Your task to perform on an android device: change notifications settings Image 0: 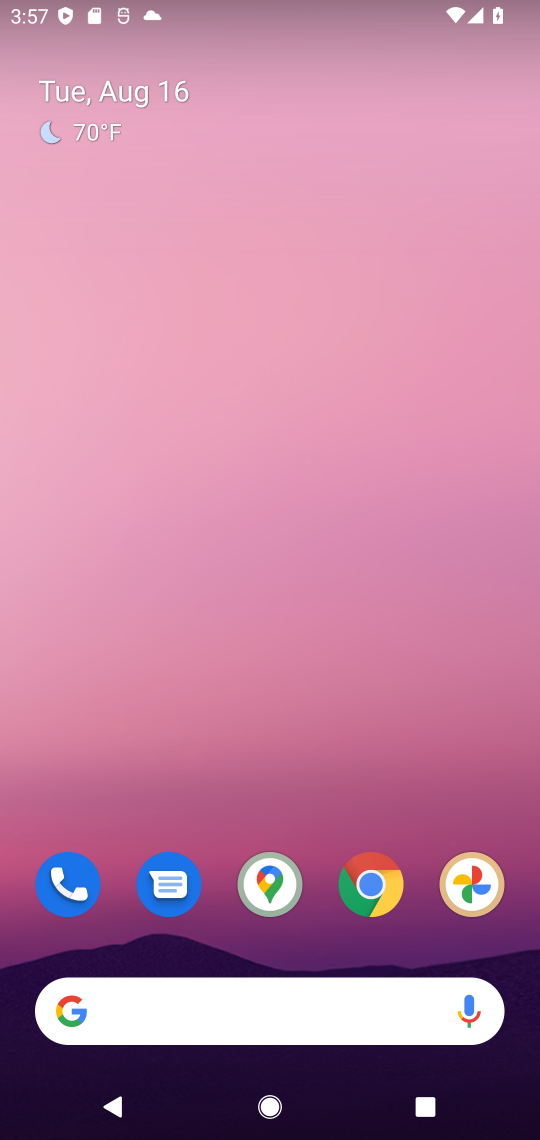
Step 0: drag from (243, 548) to (243, 225)
Your task to perform on an android device: change notifications settings Image 1: 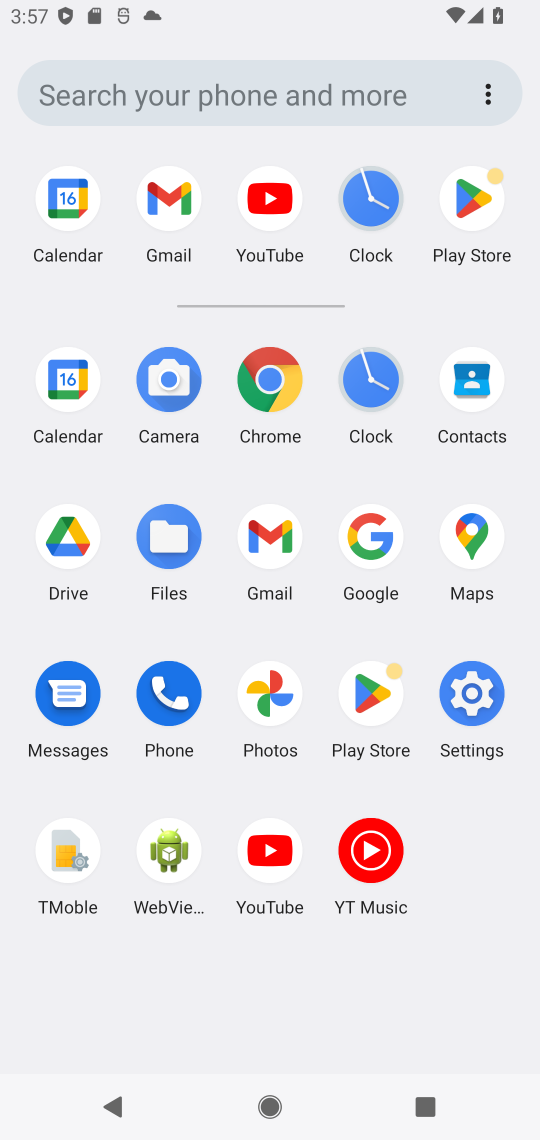
Step 1: click (486, 683)
Your task to perform on an android device: change notifications settings Image 2: 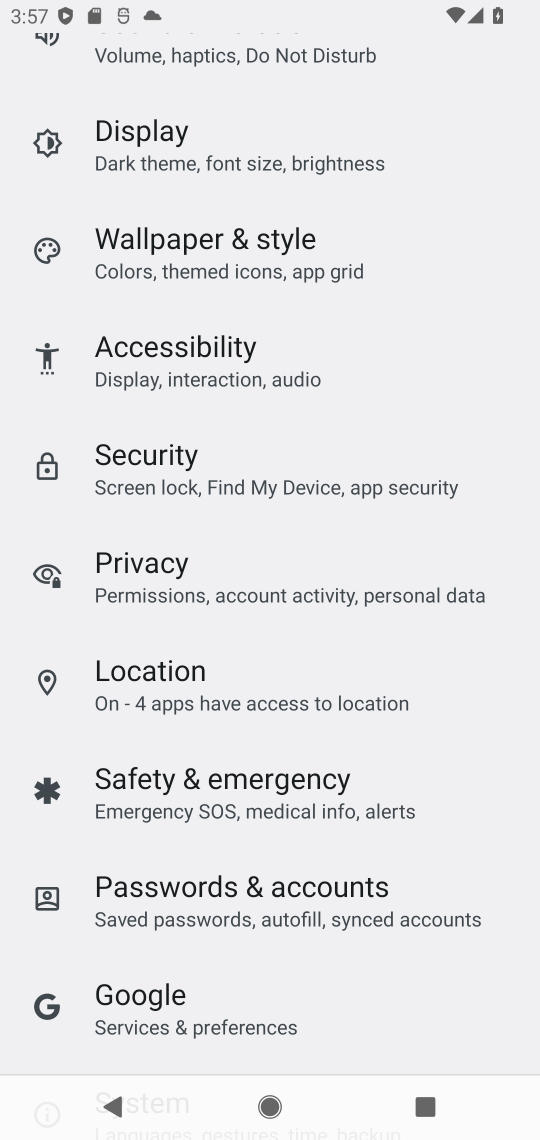
Step 2: drag from (261, 403) to (263, 790)
Your task to perform on an android device: change notifications settings Image 3: 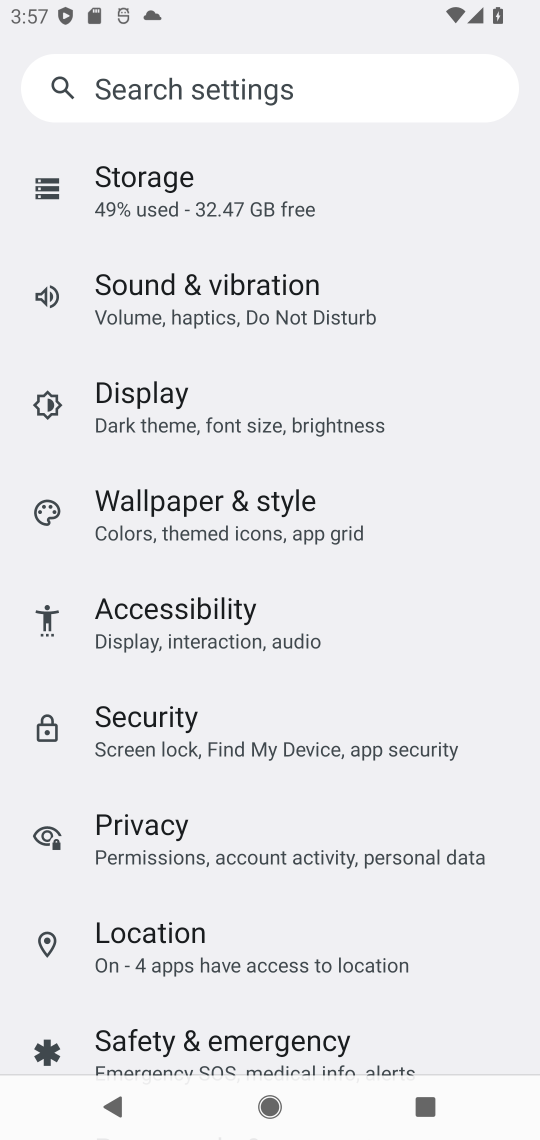
Step 3: drag from (256, 359) to (333, 864)
Your task to perform on an android device: change notifications settings Image 4: 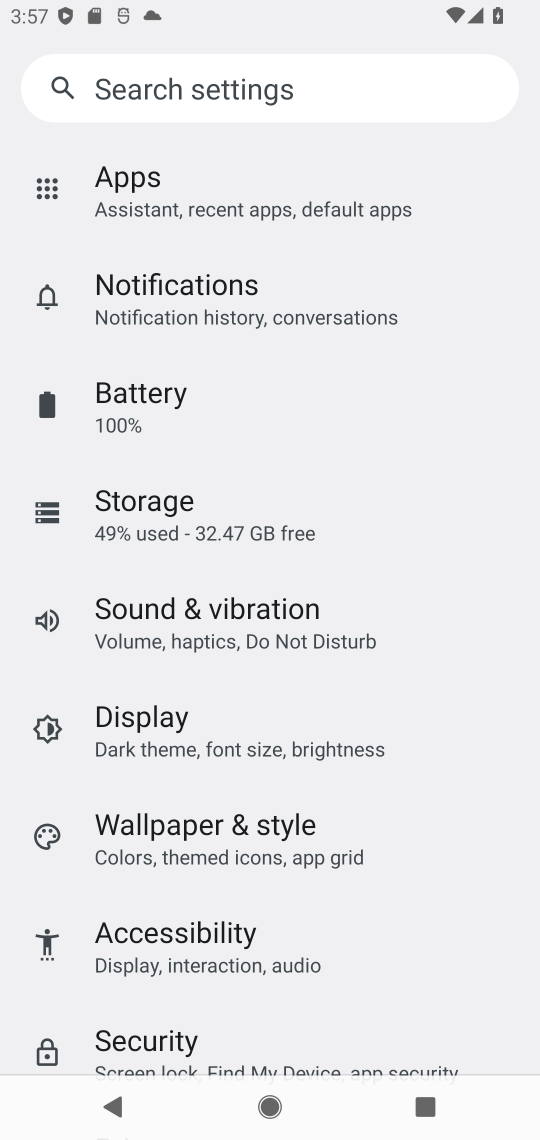
Step 4: click (194, 330)
Your task to perform on an android device: change notifications settings Image 5: 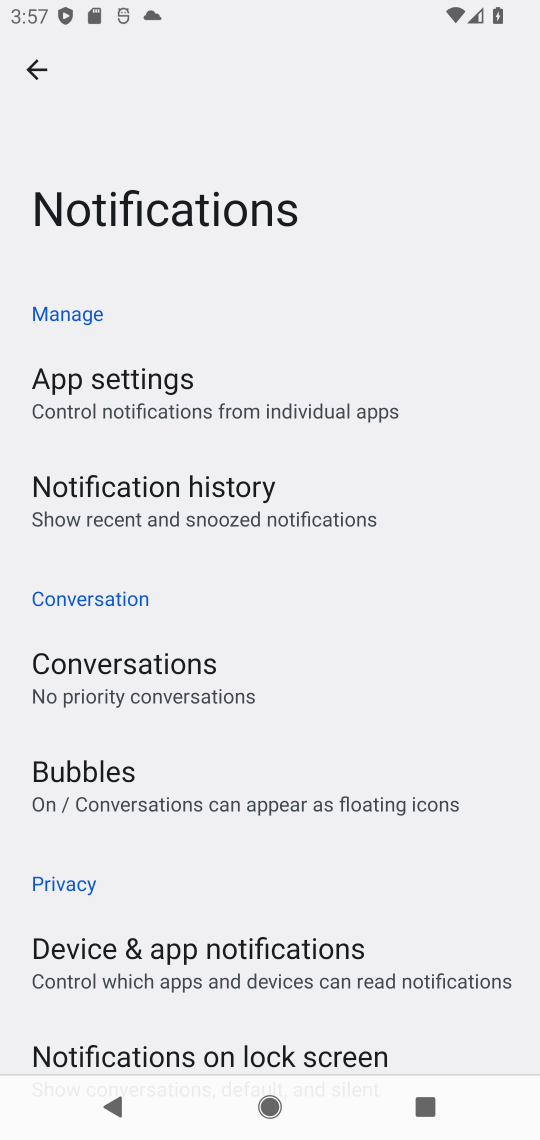
Step 5: drag from (299, 969) to (301, 551)
Your task to perform on an android device: change notifications settings Image 6: 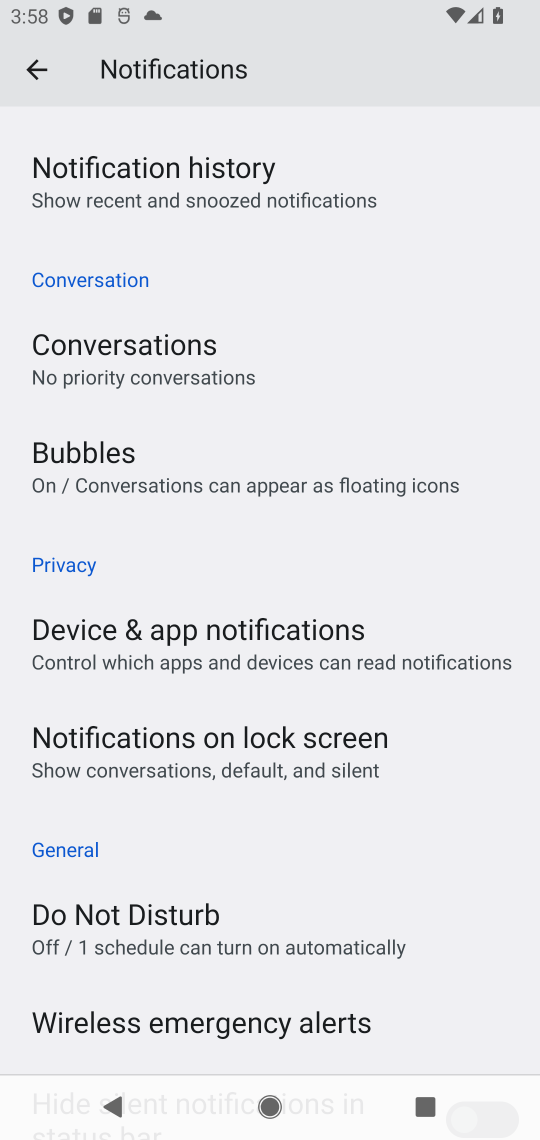
Step 6: drag from (251, 495) to (263, 919)
Your task to perform on an android device: change notifications settings Image 7: 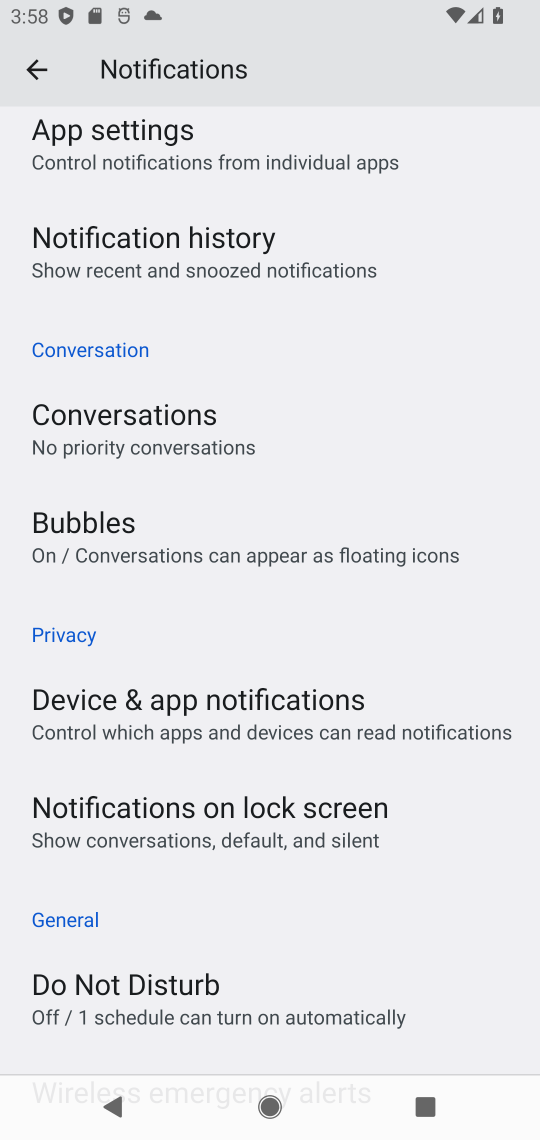
Step 7: drag from (385, 673) to (408, 854)
Your task to perform on an android device: change notifications settings Image 8: 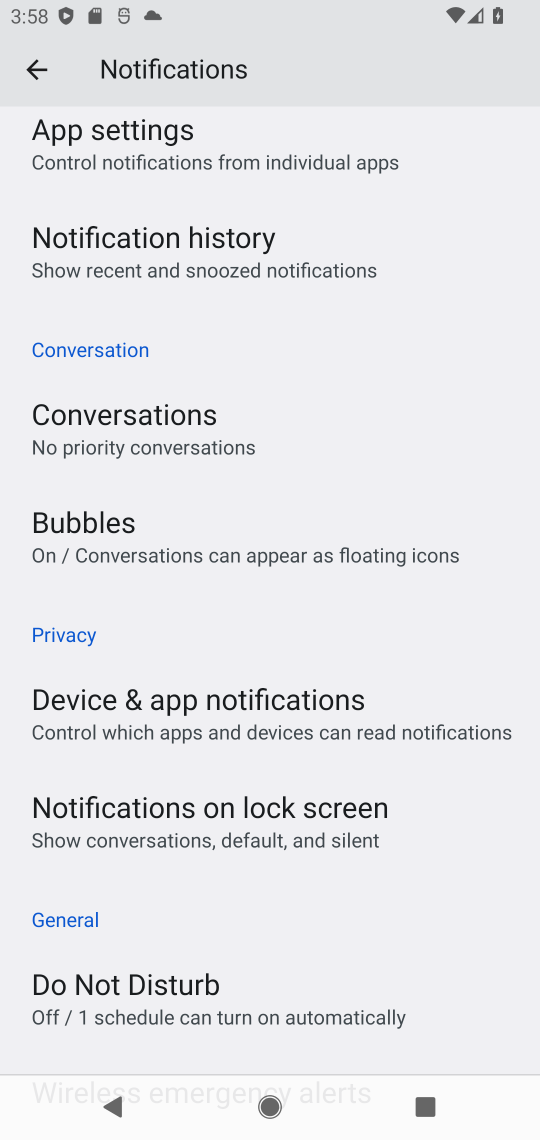
Step 8: click (237, 822)
Your task to perform on an android device: change notifications settings Image 9: 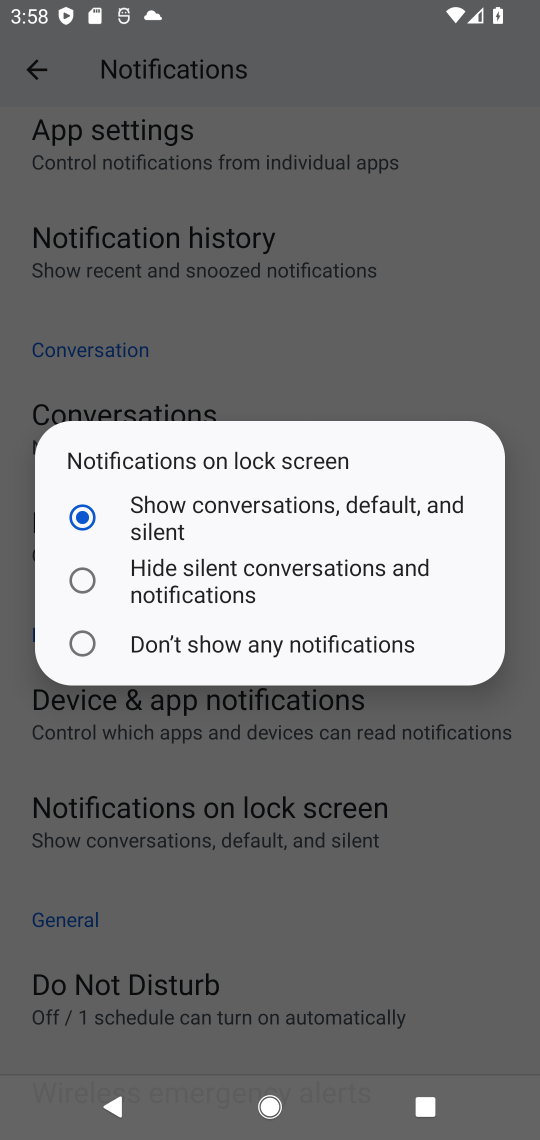
Step 9: click (218, 651)
Your task to perform on an android device: change notifications settings Image 10: 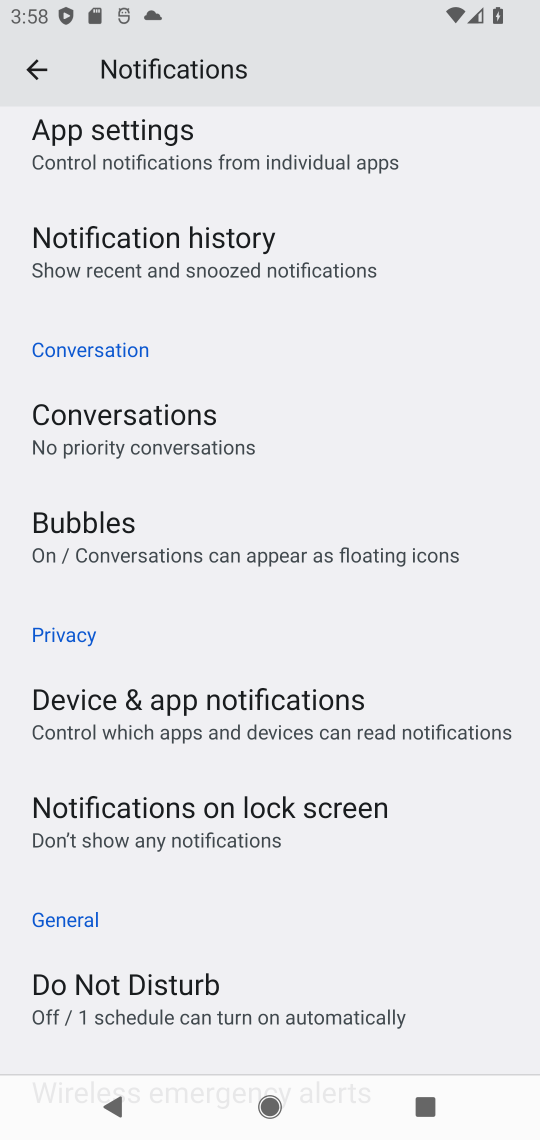
Step 10: task complete